Your task to perform on an android device: check the backup settings in the google photos Image 0: 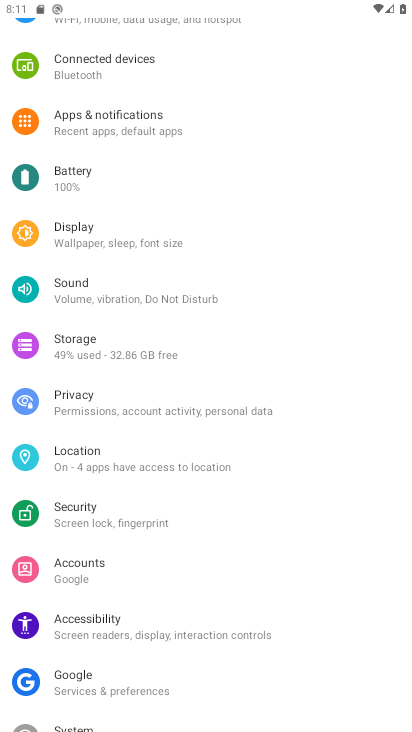
Step 0: press home button
Your task to perform on an android device: check the backup settings in the google photos Image 1: 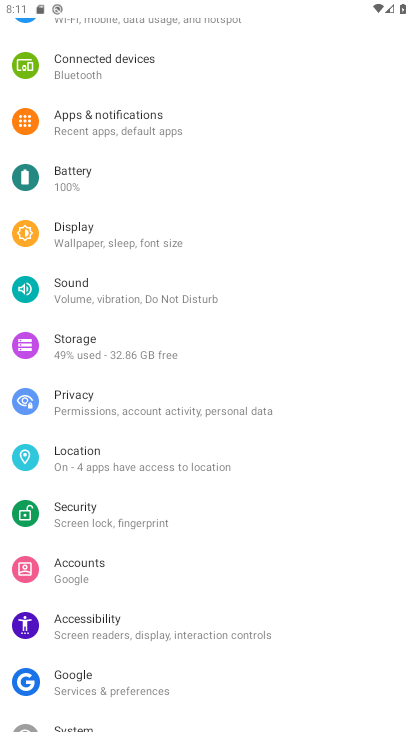
Step 1: press home button
Your task to perform on an android device: check the backup settings in the google photos Image 2: 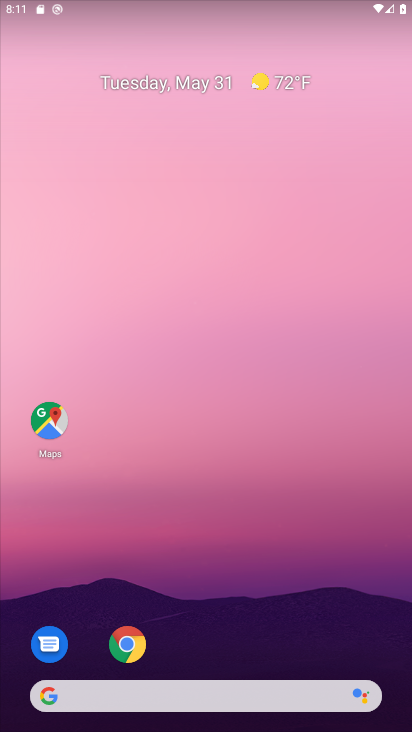
Step 2: drag from (213, 666) to (222, 140)
Your task to perform on an android device: check the backup settings in the google photos Image 3: 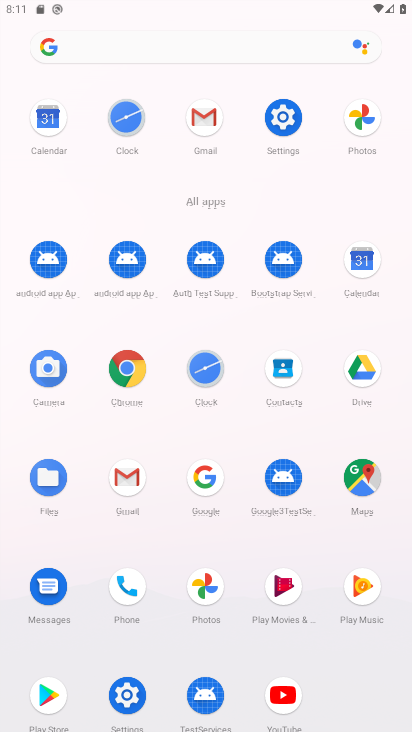
Step 3: click (363, 110)
Your task to perform on an android device: check the backup settings in the google photos Image 4: 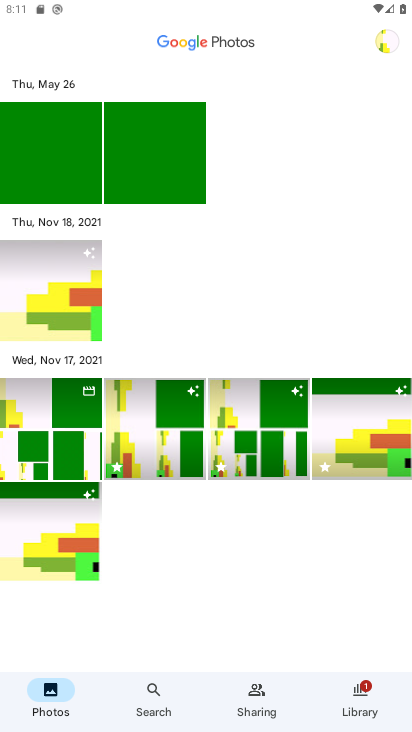
Step 4: click (378, 37)
Your task to perform on an android device: check the backup settings in the google photos Image 5: 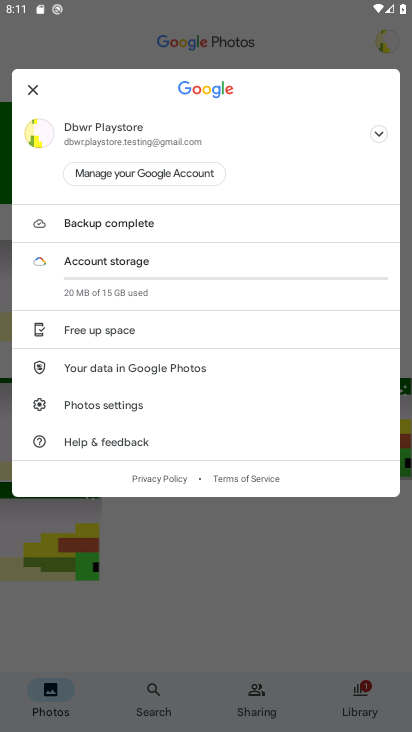
Step 5: click (152, 405)
Your task to perform on an android device: check the backup settings in the google photos Image 6: 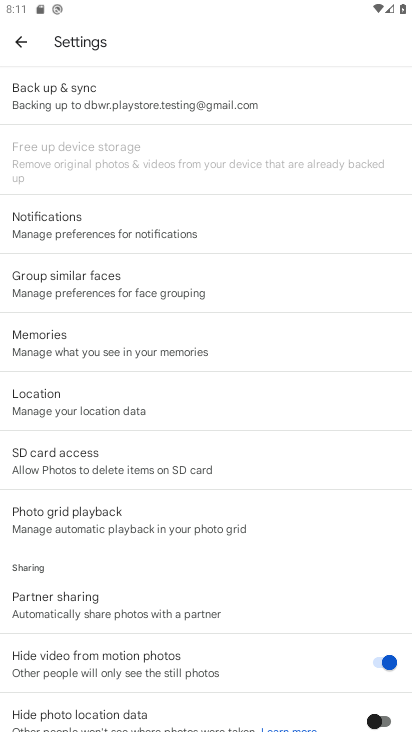
Step 6: click (114, 217)
Your task to perform on an android device: check the backup settings in the google photos Image 7: 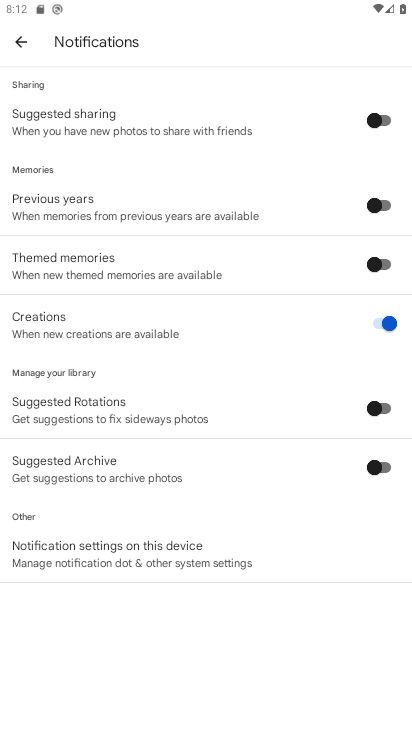
Step 7: click (26, 43)
Your task to perform on an android device: check the backup settings in the google photos Image 8: 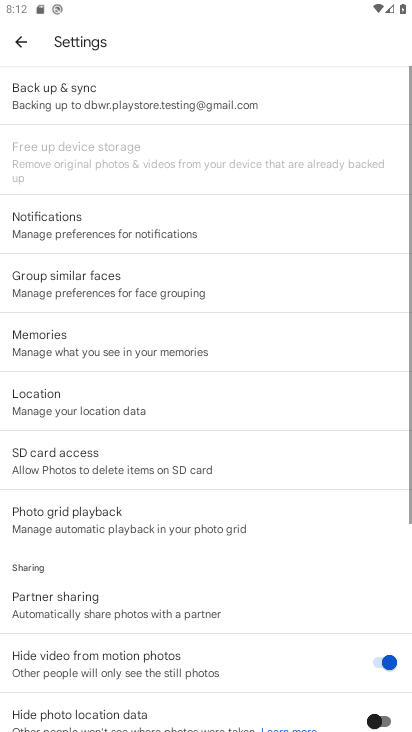
Step 8: click (113, 93)
Your task to perform on an android device: check the backup settings in the google photos Image 9: 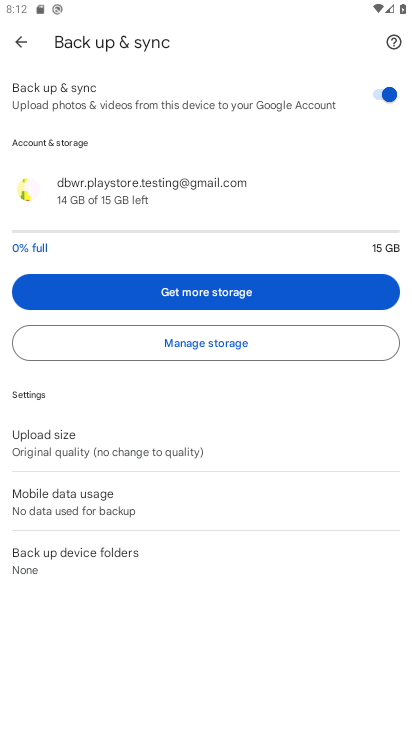
Step 9: task complete